Your task to perform on an android device: Search for pizza restaurants on Maps Image 0: 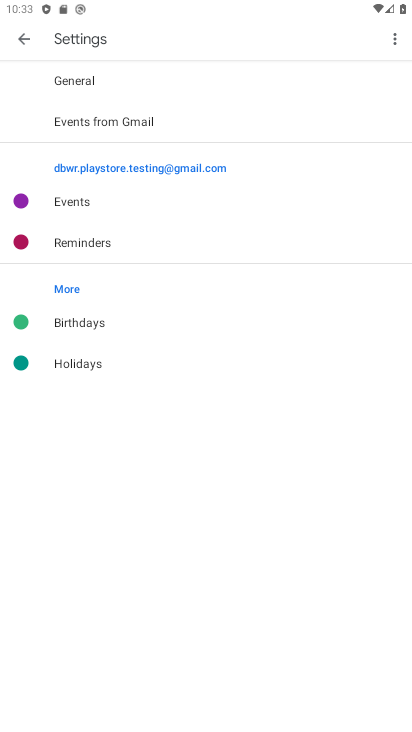
Step 0: press home button
Your task to perform on an android device: Search for pizza restaurants on Maps Image 1: 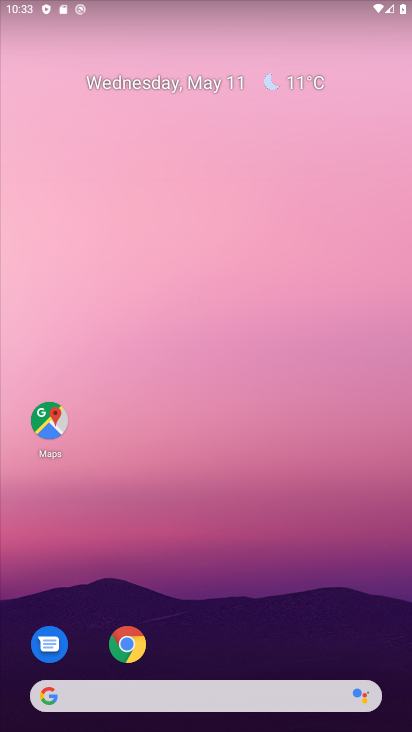
Step 1: click (42, 419)
Your task to perform on an android device: Search for pizza restaurants on Maps Image 2: 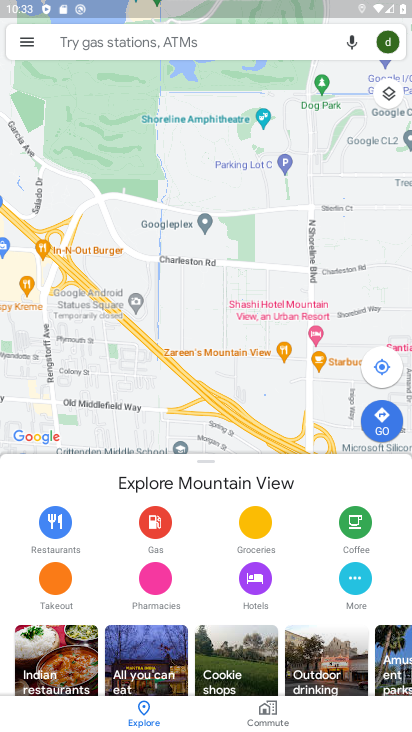
Step 2: click (90, 44)
Your task to perform on an android device: Search for pizza restaurants on Maps Image 3: 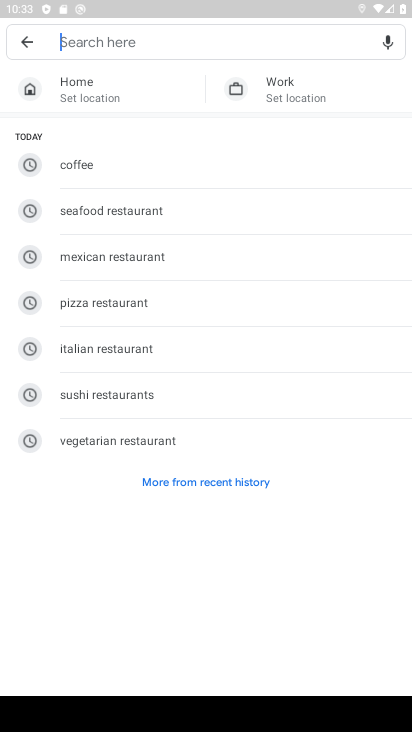
Step 3: type "pizza restaurant "
Your task to perform on an android device: Search for pizza restaurants on Maps Image 4: 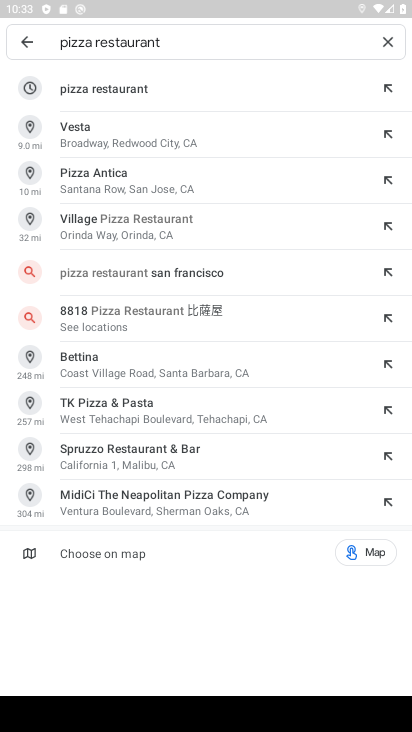
Step 4: click (108, 96)
Your task to perform on an android device: Search for pizza restaurants on Maps Image 5: 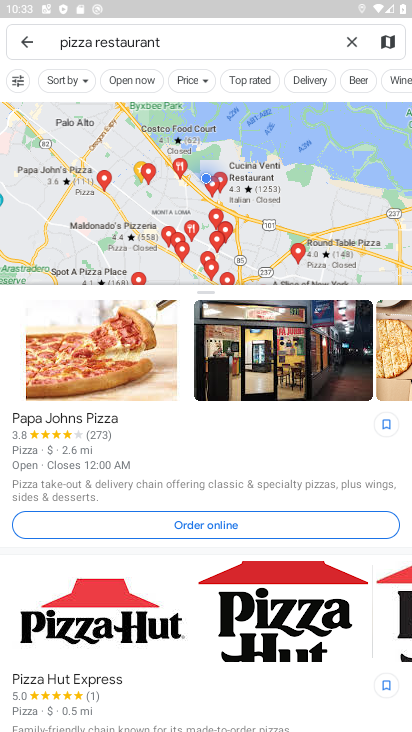
Step 5: task complete